Your task to perform on an android device: toggle location history Image 0: 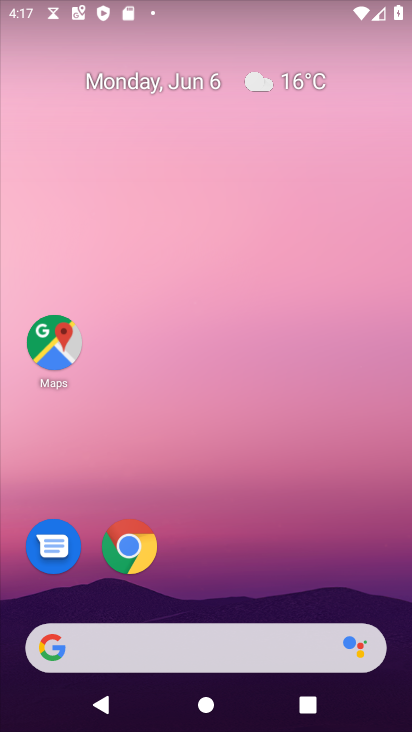
Step 0: drag from (326, 547) to (354, 18)
Your task to perform on an android device: toggle location history Image 1: 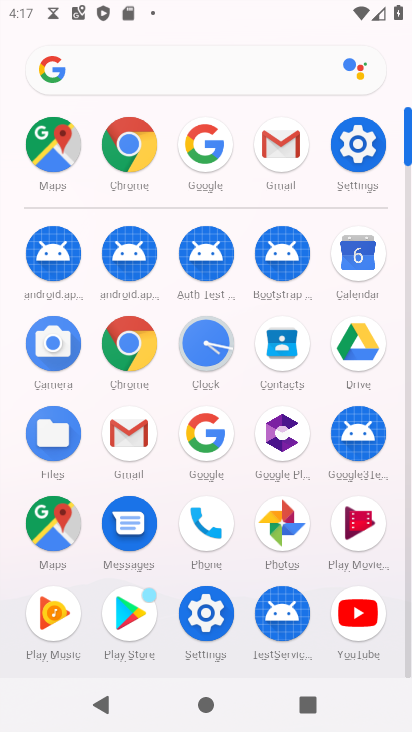
Step 1: click (353, 140)
Your task to perform on an android device: toggle location history Image 2: 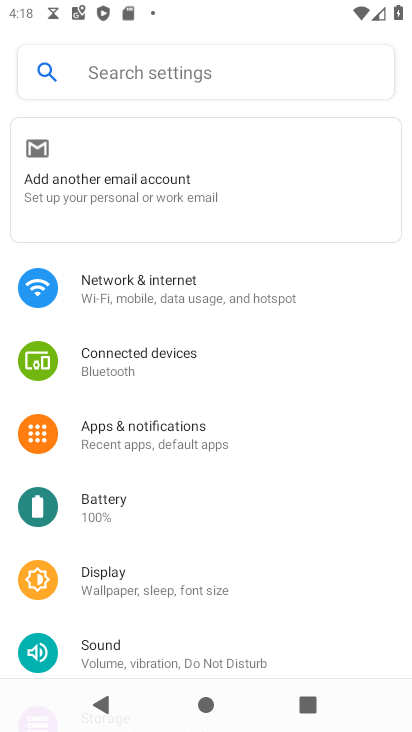
Step 2: drag from (204, 601) to (318, 155)
Your task to perform on an android device: toggle location history Image 3: 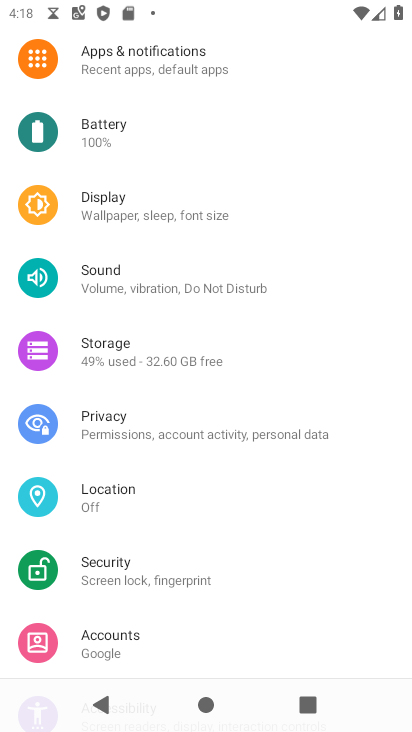
Step 3: click (116, 483)
Your task to perform on an android device: toggle location history Image 4: 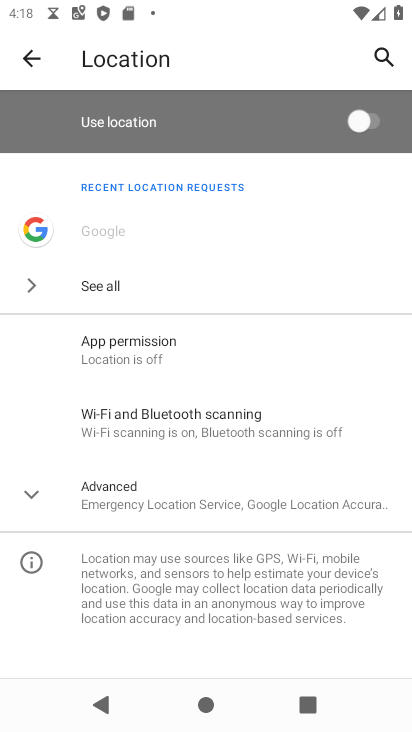
Step 4: click (190, 500)
Your task to perform on an android device: toggle location history Image 5: 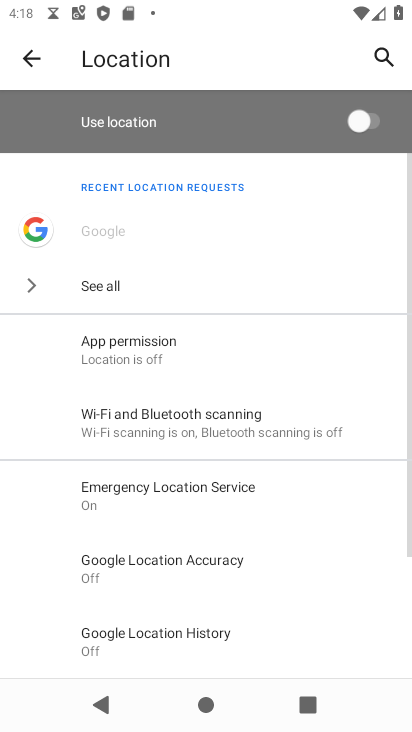
Step 5: drag from (208, 626) to (264, 264)
Your task to perform on an android device: toggle location history Image 6: 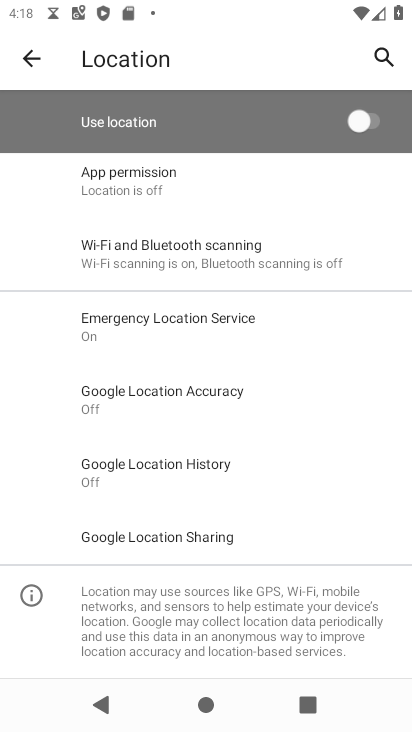
Step 6: click (181, 474)
Your task to perform on an android device: toggle location history Image 7: 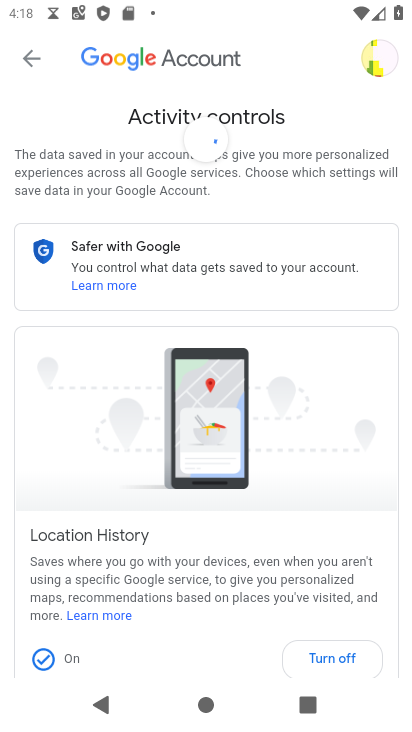
Step 7: drag from (318, 593) to (354, 67)
Your task to perform on an android device: toggle location history Image 8: 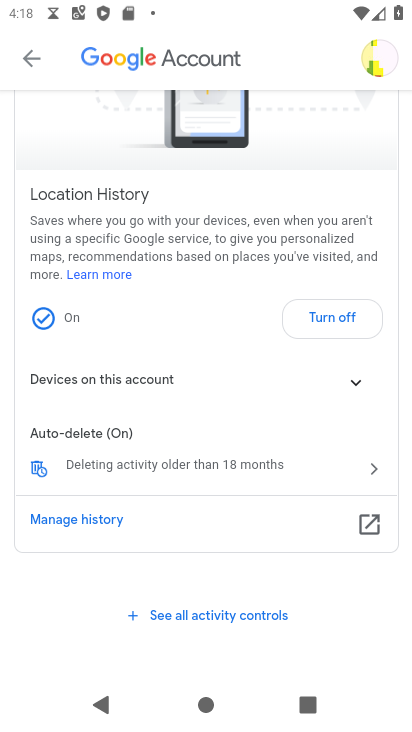
Step 8: click (336, 321)
Your task to perform on an android device: toggle location history Image 9: 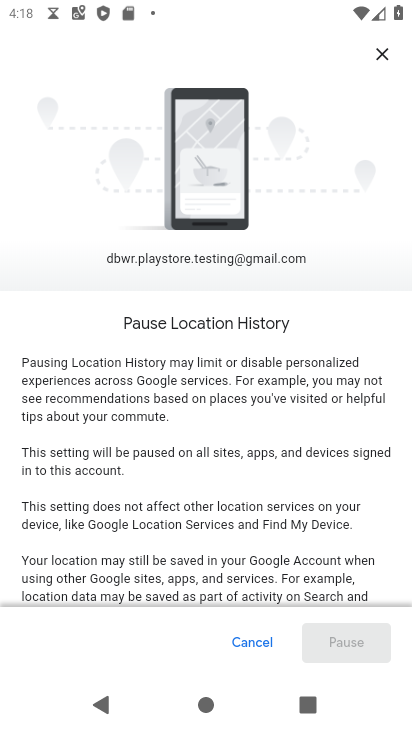
Step 9: drag from (291, 555) to (298, 83)
Your task to perform on an android device: toggle location history Image 10: 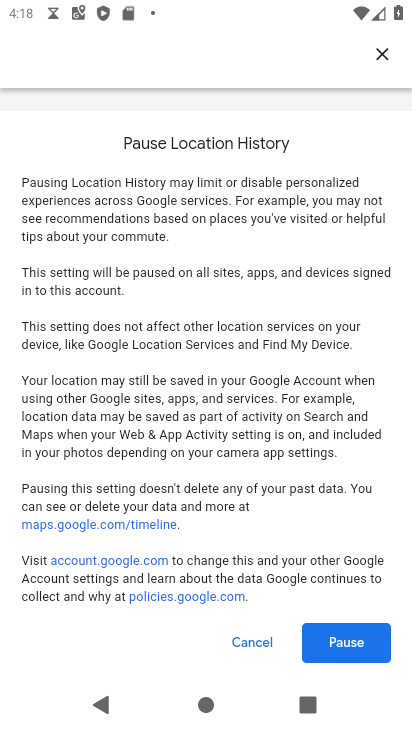
Step 10: drag from (213, 511) to (281, 92)
Your task to perform on an android device: toggle location history Image 11: 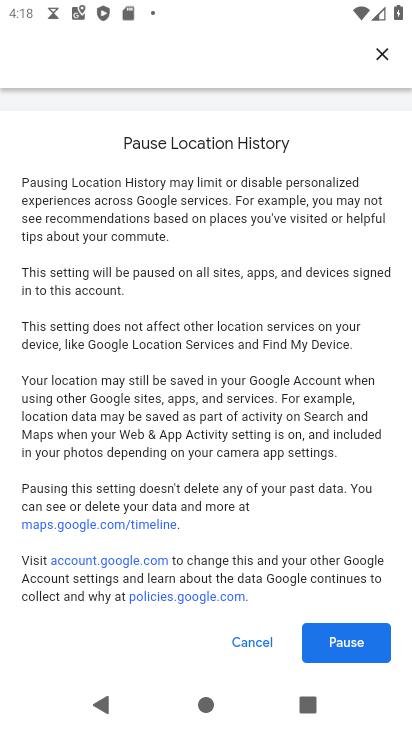
Step 11: click (348, 650)
Your task to perform on an android device: toggle location history Image 12: 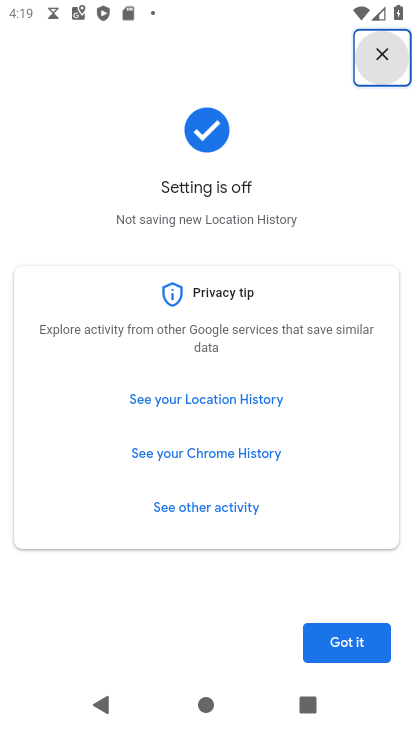
Step 12: click (348, 647)
Your task to perform on an android device: toggle location history Image 13: 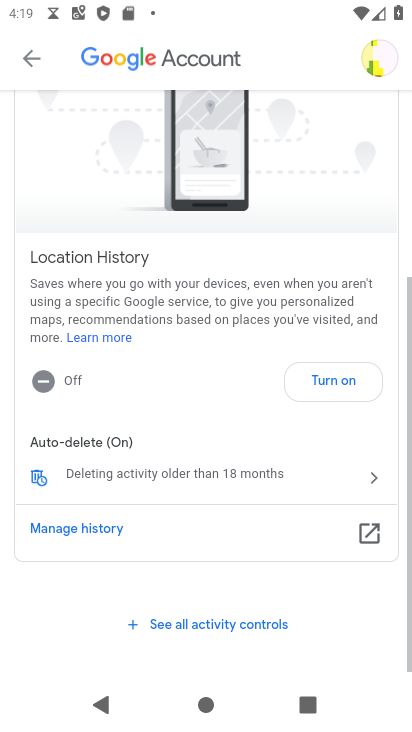
Step 13: task complete